Your task to perform on an android device: change alarm snooze length Image 0: 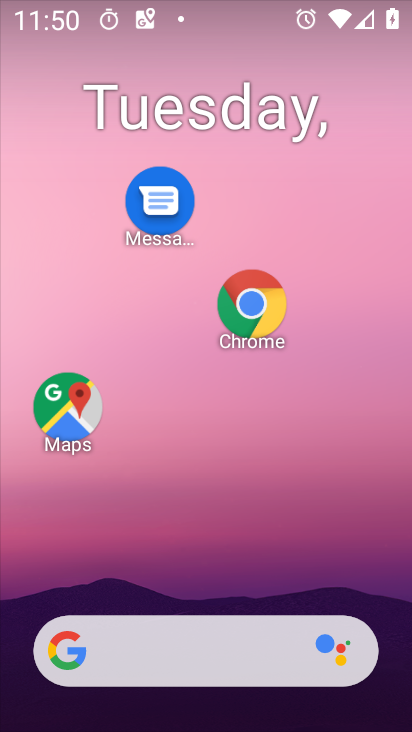
Step 0: click (346, 156)
Your task to perform on an android device: change alarm snooze length Image 1: 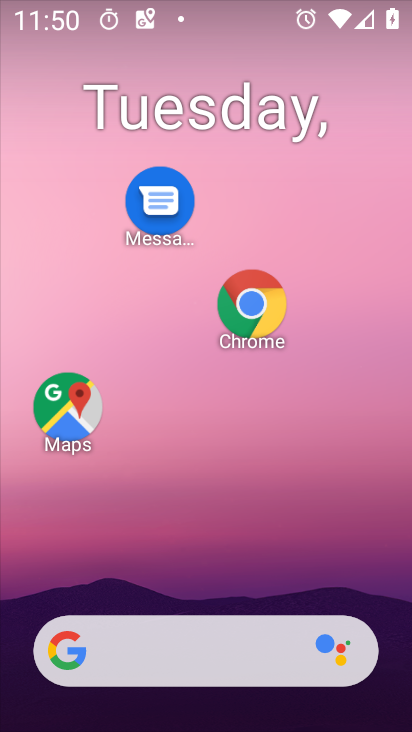
Step 1: drag from (313, 215) to (314, 146)
Your task to perform on an android device: change alarm snooze length Image 2: 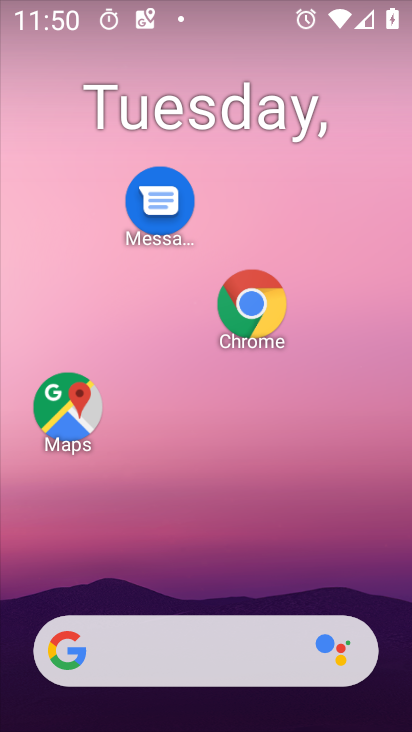
Step 2: drag from (181, 359) to (184, 191)
Your task to perform on an android device: change alarm snooze length Image 3: 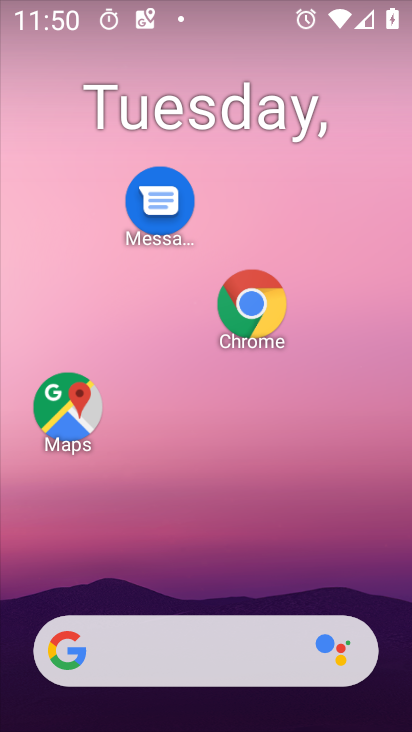
Step 3: drag from (190, 446) to (254, 50)
Your task to perform on an android device: change alarm snooze length Image 4: 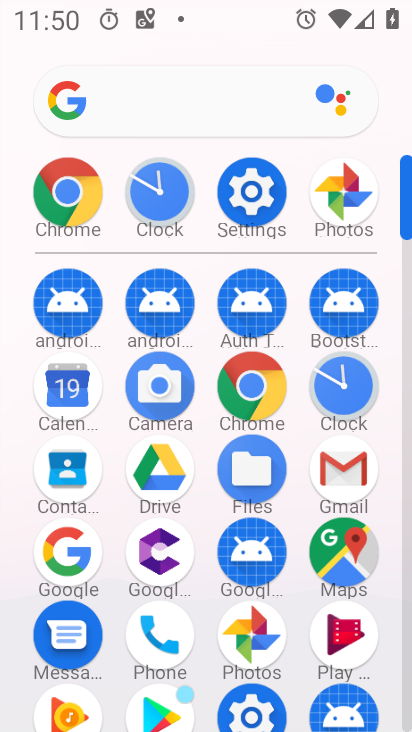
Step 4: click (332, 372)
Your task to perform on an android device: change alarm snooze length Image 5: 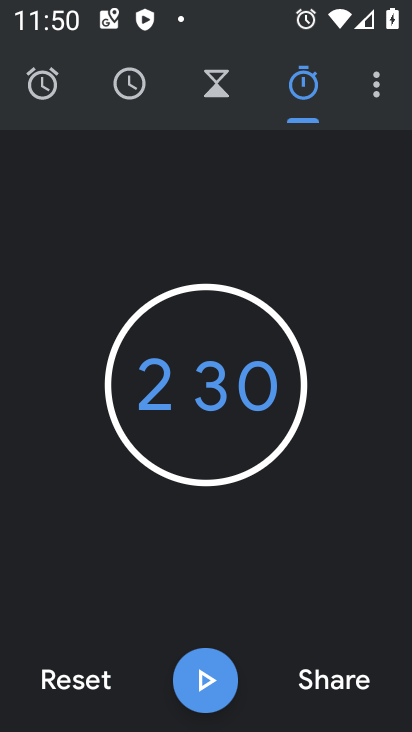
Step 5: click (377, 73)
Your task to perform on an android device: change alarm snooze length Image 6: 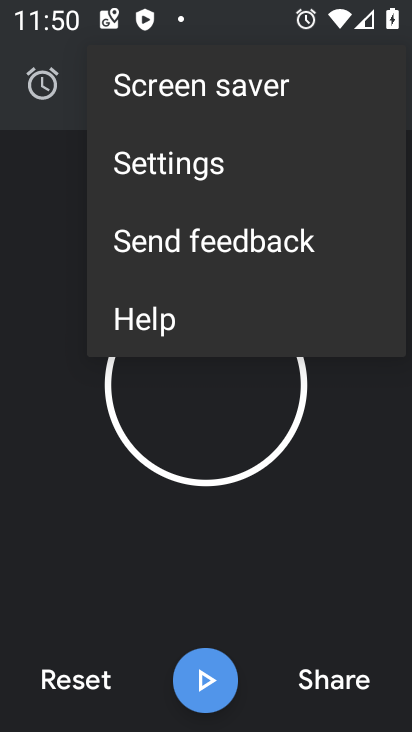
Step 6: click (303, 168)
Your task to perform on an android device: change alarm snooze length Image 7: 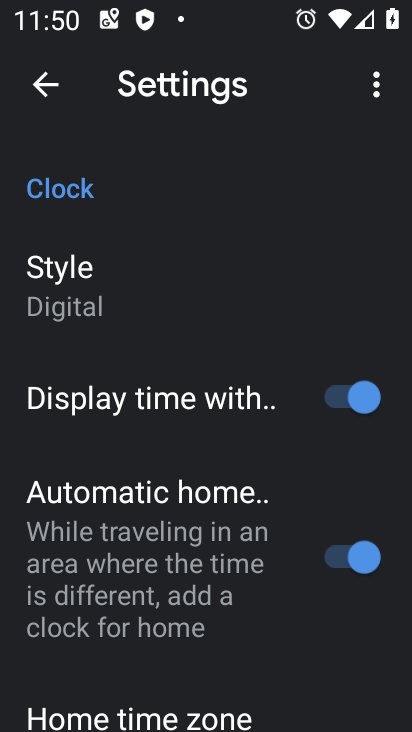
Step 7: drag from (192, 591) to (240, 185)
Your task to perform on an android device: change alarm snooze length Image 8: 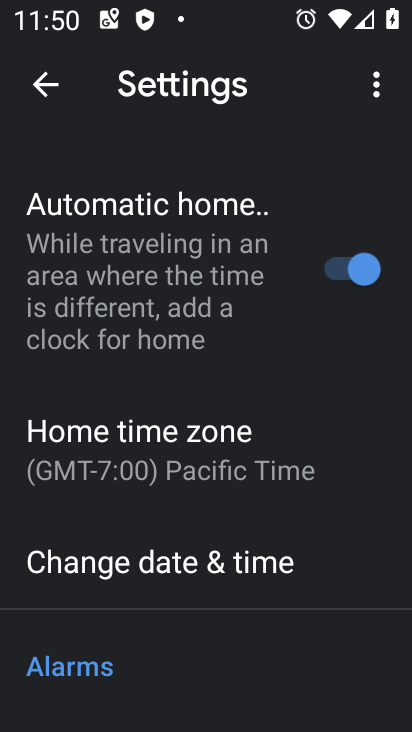
Step 8: drag from (195, 607) to (240, 168)
Your task to perform on an android device: change alarm snooze length Image 9: 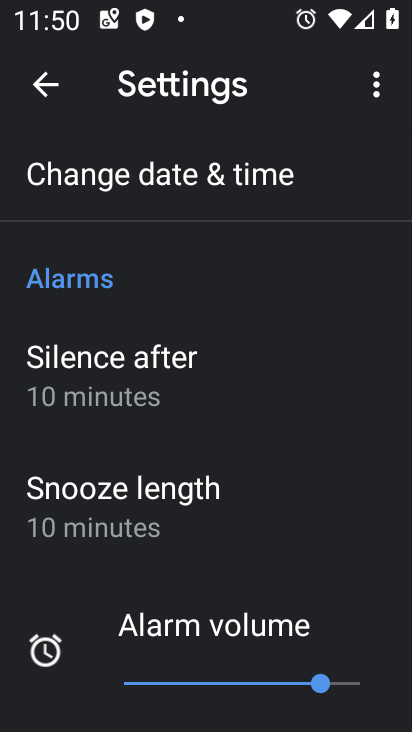
Step 9: click (121, 514)
Your task to perform on an android device: change alarm snooze length Image 10: 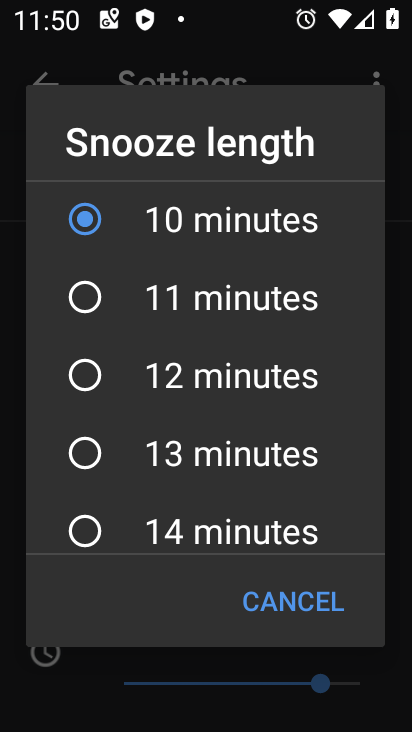
Step 10: drag from (141, 462) to (229, 200)
Your task to perform on an android device: change alarm snooze length Image 11: 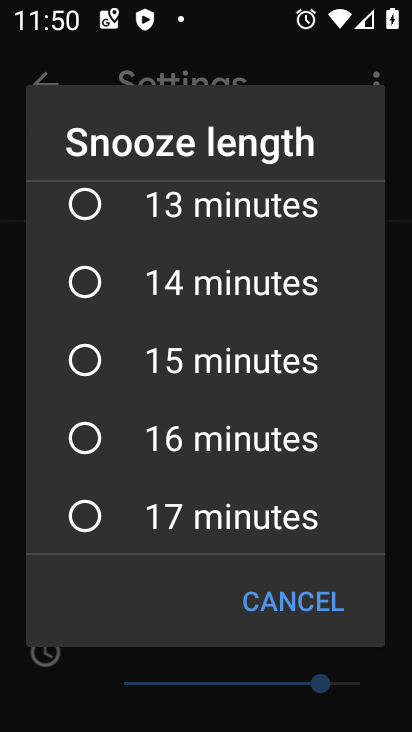
Step 11: drag from (179, 468) to (223, 264)
Your task to perform on an android device: change alarm snooze length Image 12: 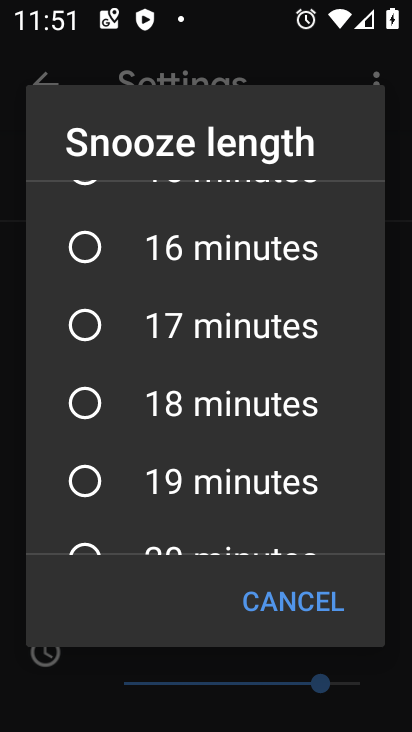
Step 12: click (173, 395)
Your task to perform on an android device: change alarm snooze length Image 13: 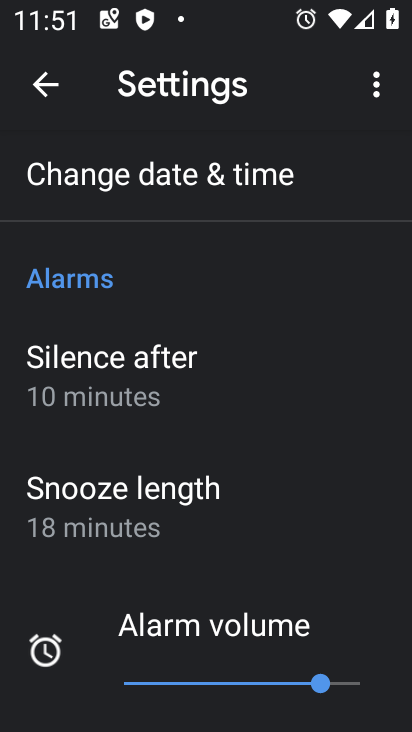
Step 13: task complete